Your task to perform on an android device: Open Google Chrome and click the shortcut for Amazon.com Image 0: 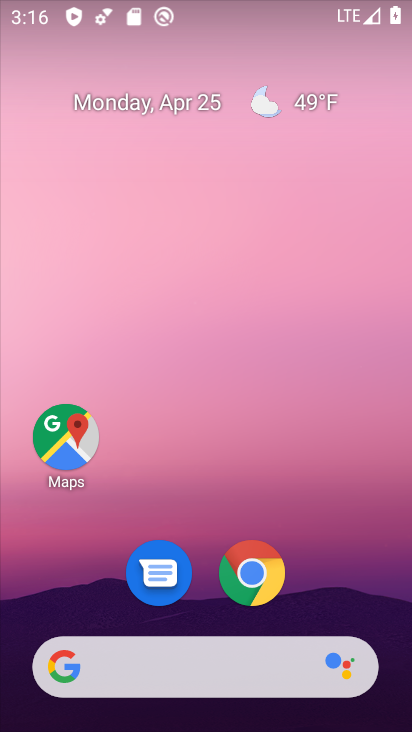
Step 0: click (262, 581)
Your task to perform on an android device: Open Google Chrome and click the shortcut for Amazon.com Image 1: 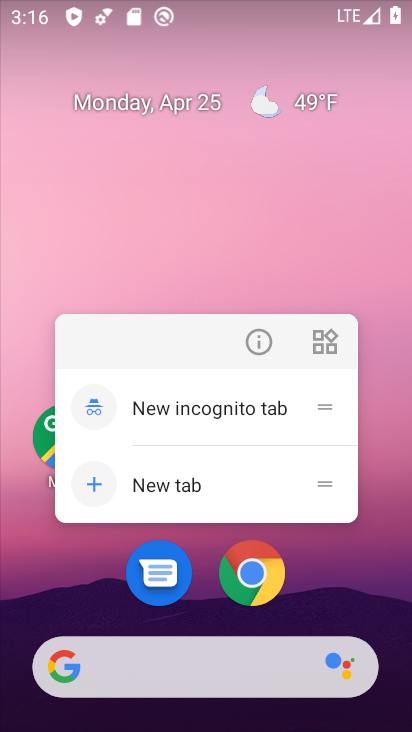
Step 1: click (262, 581)
Your task to perform on an android device: Open Google Chrome and click the shortcut for Amazon.com Image 2: 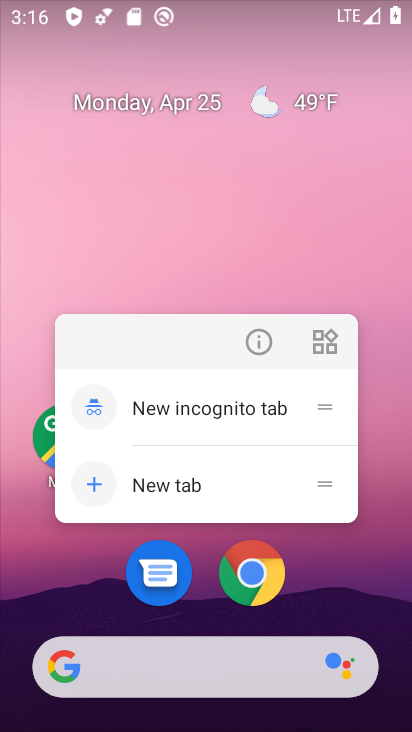
Step 2: click (374, 548)
Your task to perform on an android device: Open Google Chrome and click the shortcut for Amazon.com Image 3: 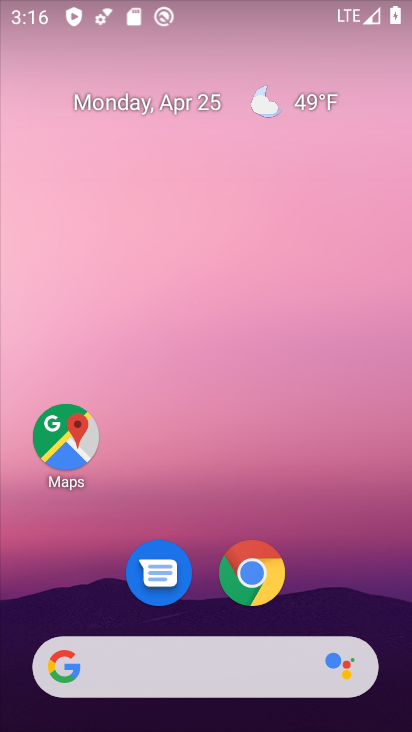
Step 3: click (244, 563)
Your task to perform on an android device: Open Google Chrome and click the shortcut for Amazon.com Image 4: 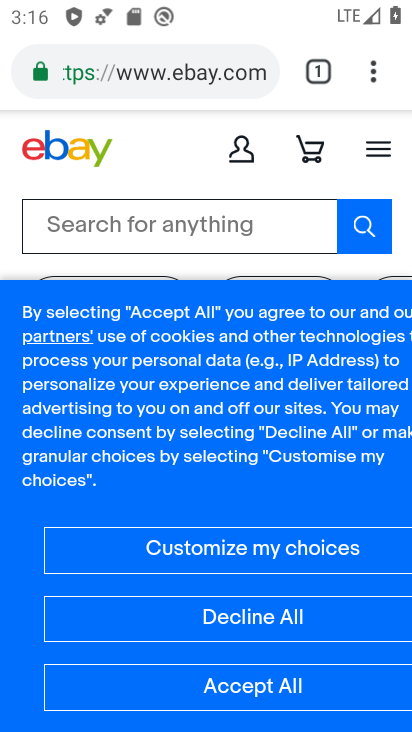
Step 4: click (332, 72)
Your task to perform on an android device: Open Google Chrome and click the shortcut for Amazon.com Image 5: 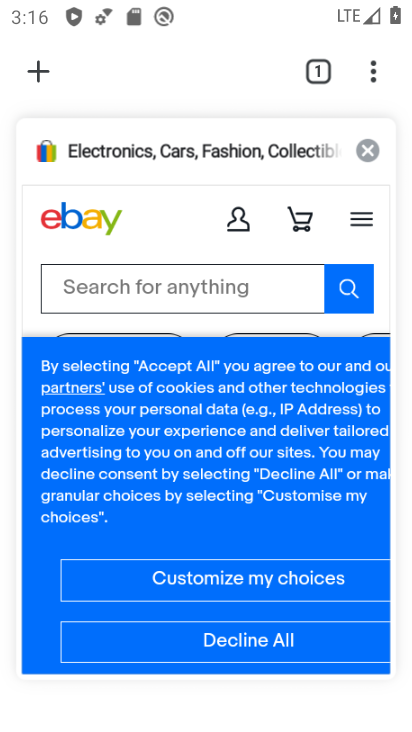
Step 5: click (364, 143)
Your task to perform on an android device: Open Google Chrome and click the shortcut for Amazon.com Image 6: 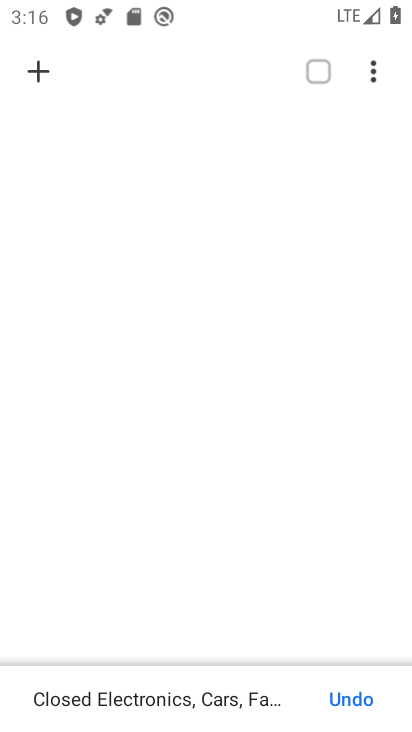
Step 6: click (32, 63)
Your task to perform on an android device: Open Google Chrome and click the shortcut for Amazon.com Image 7: 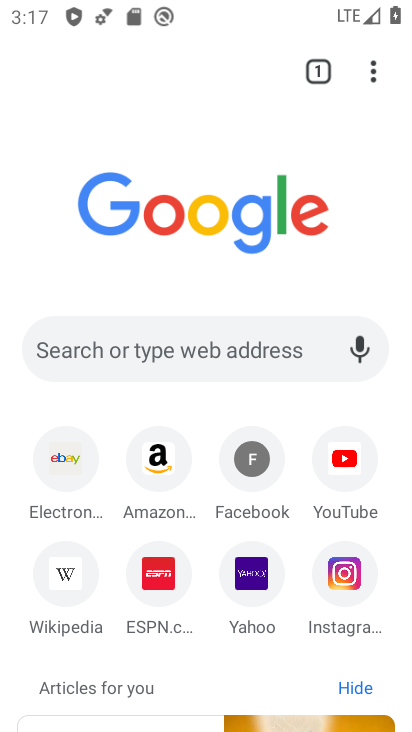
Step 7: click (171, 472)
Your task to perform on an android device: Open Google Chrome and click the shortcut for Amazon.com Image 8: 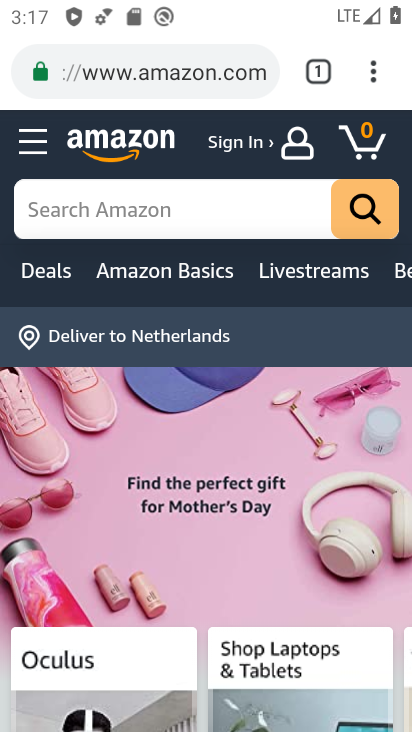
Step 8: task complete